Your task to perform on an android device: What is the recent news? Image 0: 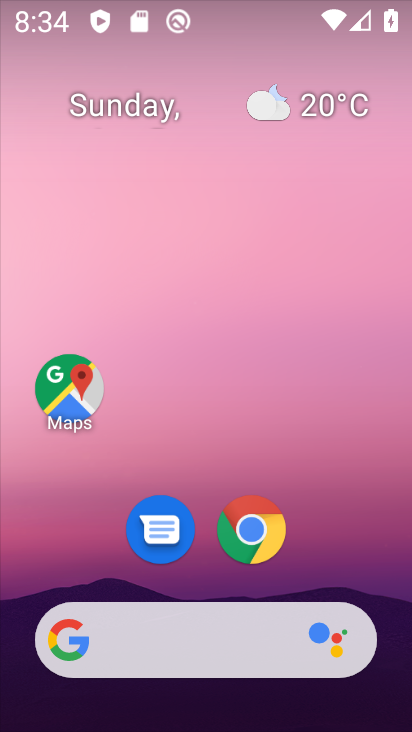
Step 0: drag from (18, 267) to (281, 251)
Your task to perform on an android device: What is the recent news? Image 1: 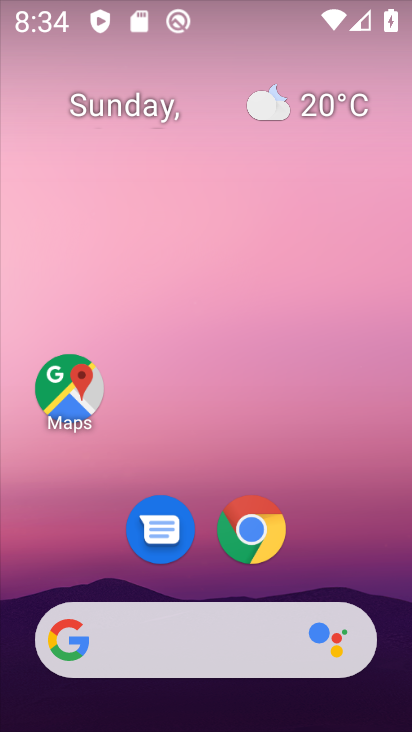
Step 1: task complete